Your task to perform on an android device: uninstall "Google Play services" Image 0: 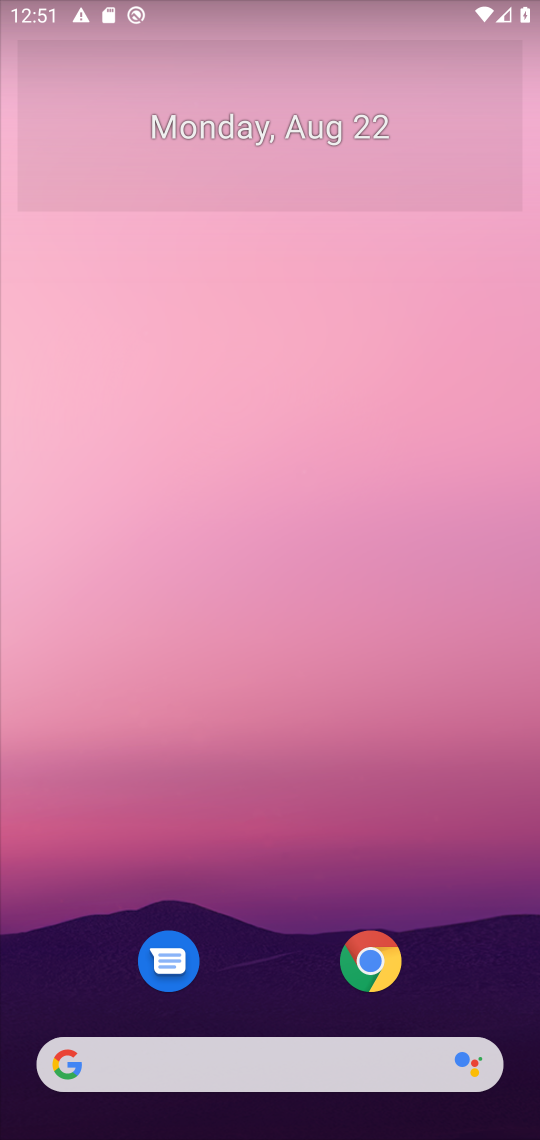
Step 0: press home button
Your task to perform on an android device: uninstall "Google Play services" Image 1: 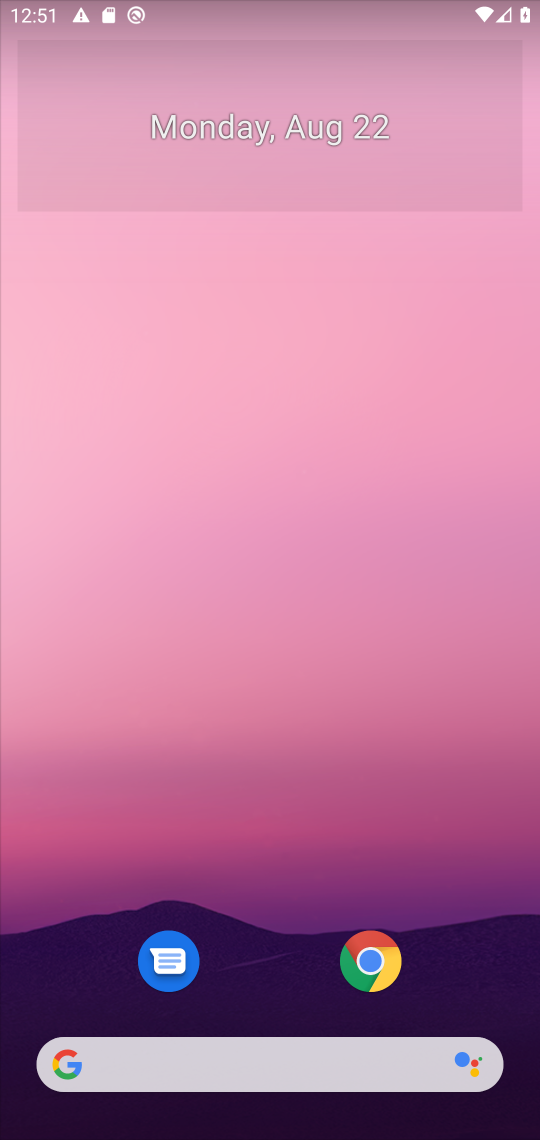
Step 1: drag from (450, 964) to (451, 171)
Your task to perform on an android device: uninstall "Google Play services" Image 2: 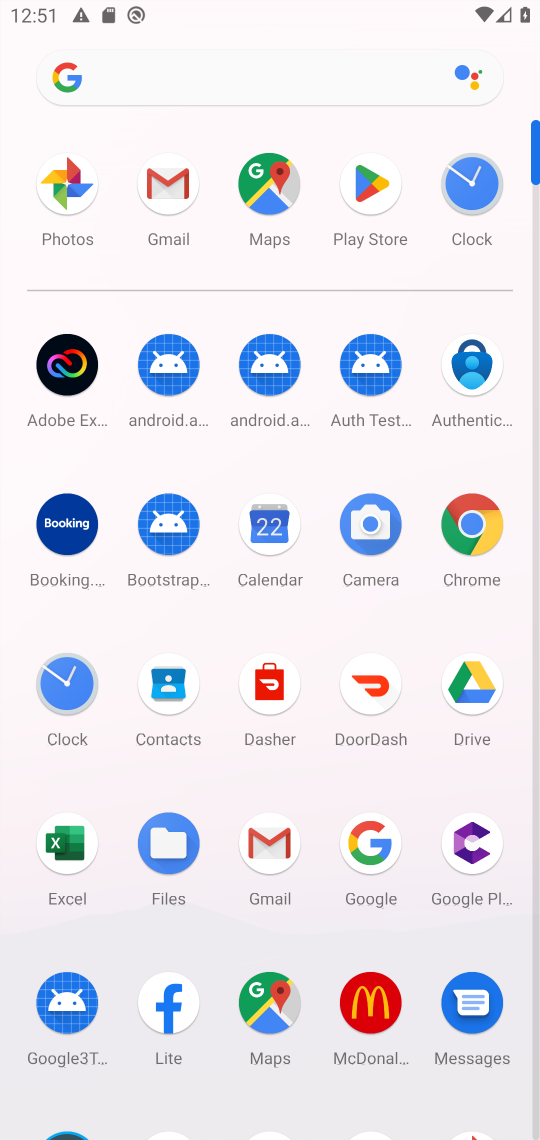
Step 2: click (362, 196)
Your task to perform on an android device: uninstall "Google Play services" Image 3: 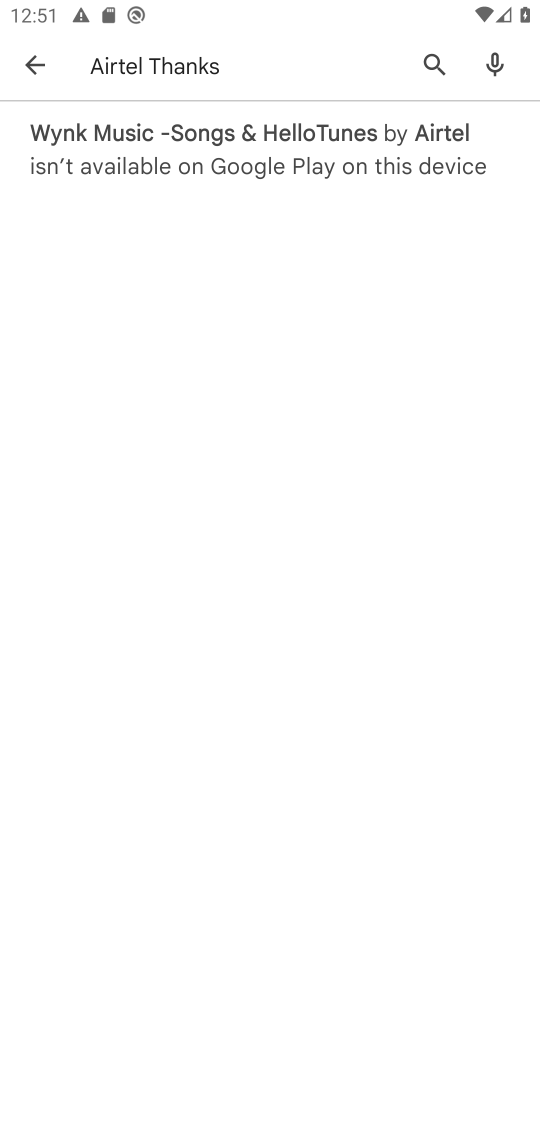
Step 3: press back button
Your task to perform on an android device: uninstall "Google Play services" Image 4: 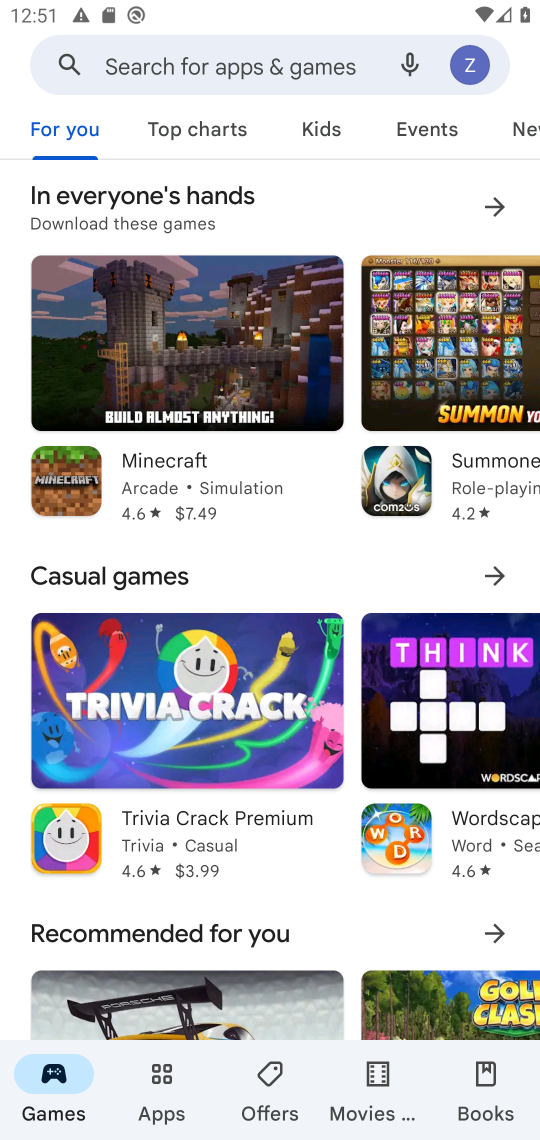
Step 4: click (248, 63)
Your task to perform on an android device: uninstall "Google Play services" Image 5: 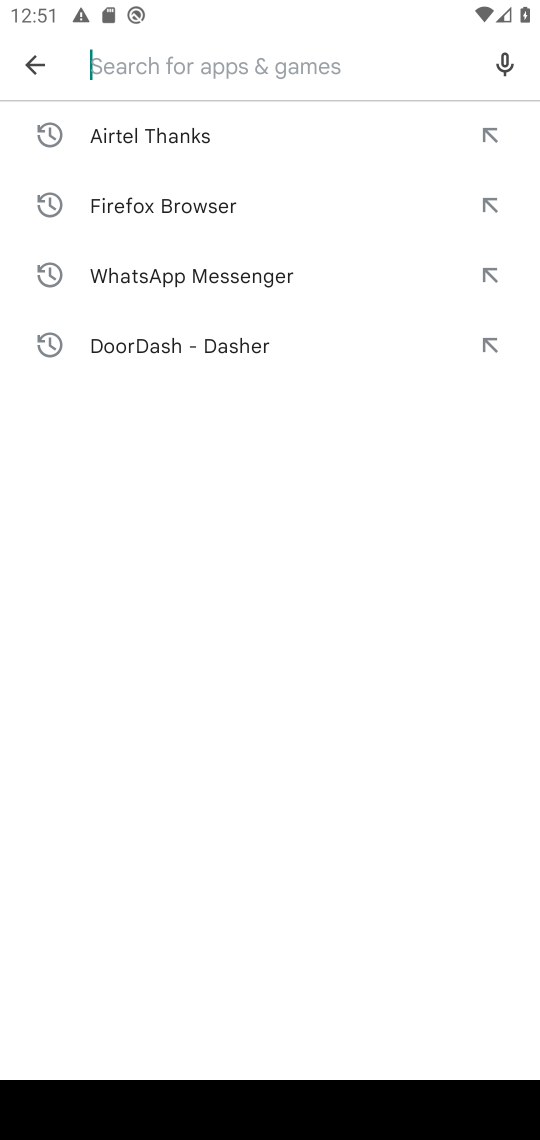
Step 5: press enter
Your task to perform on an android device: uninstall "Google Play services" Image 6: 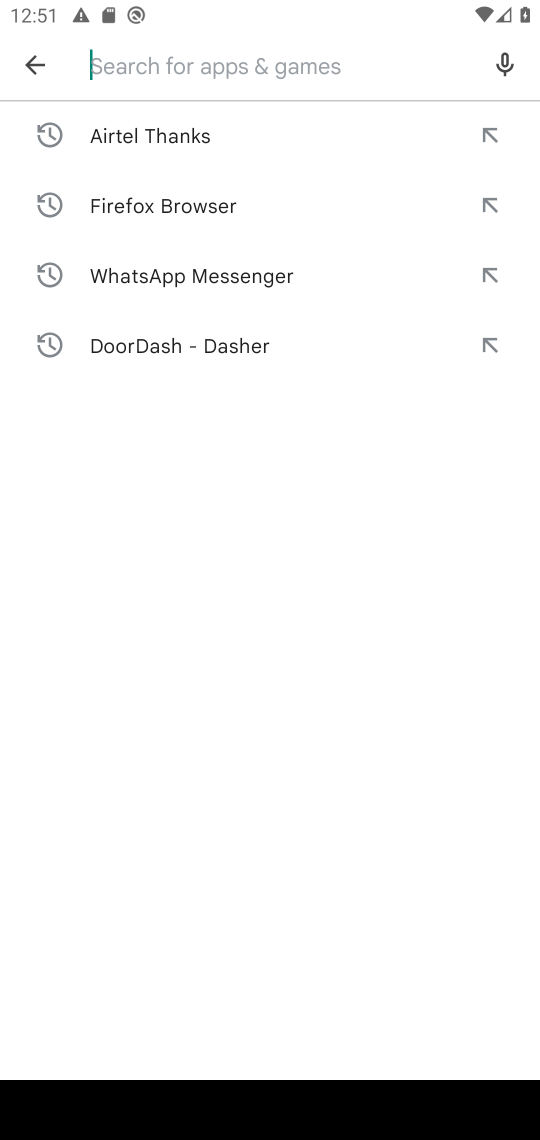
Step 6: type "Google Play services"
Your task to perform on an android device: uninstall "Google Play services" Image 7: 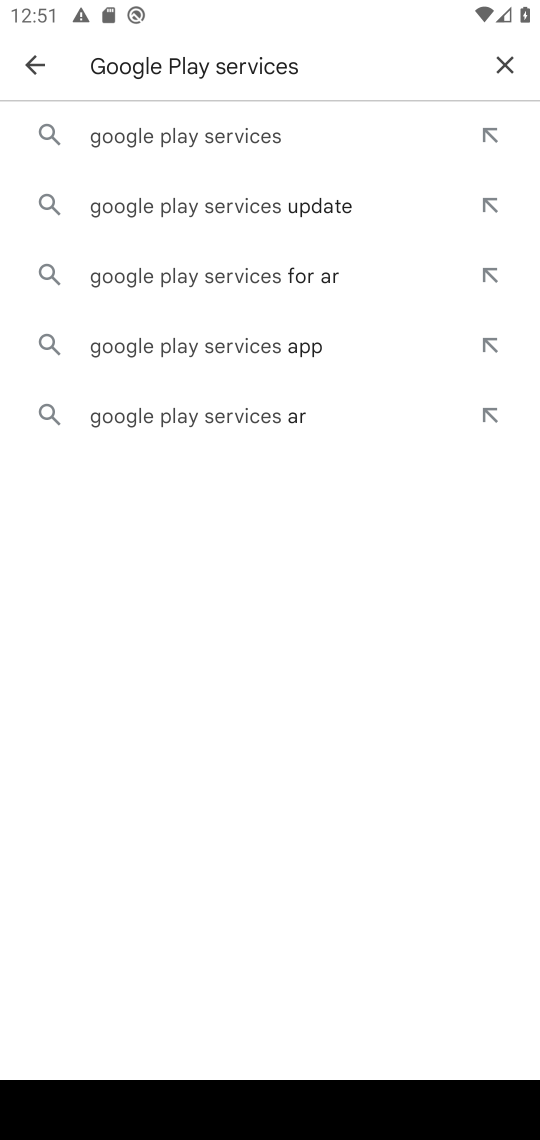
Step 7: click (264, 134)
Your task to perform on an android device: uninstall "Google Play services" Image 8: 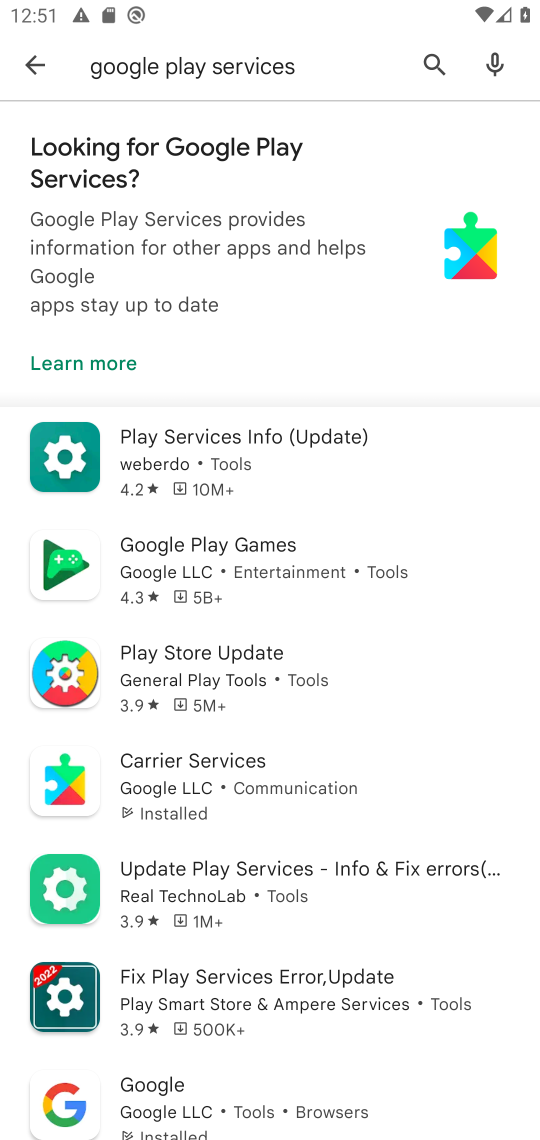
Step 8: task complete